Your task to perform on an android device: set an alarm Image 0: 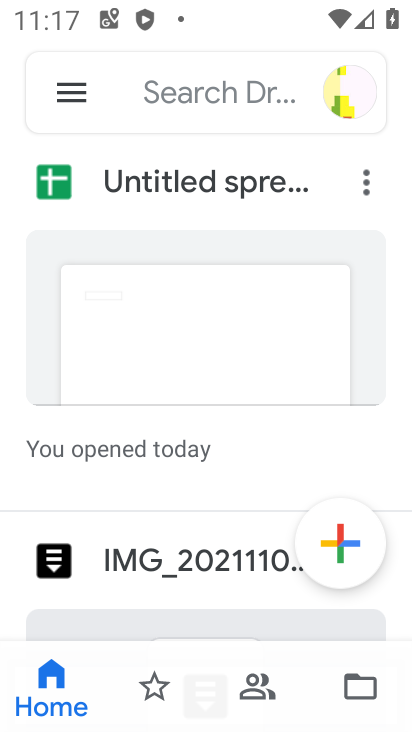
Step 0: press home button
Your task to perform on an android device: set an alarm Image 1: 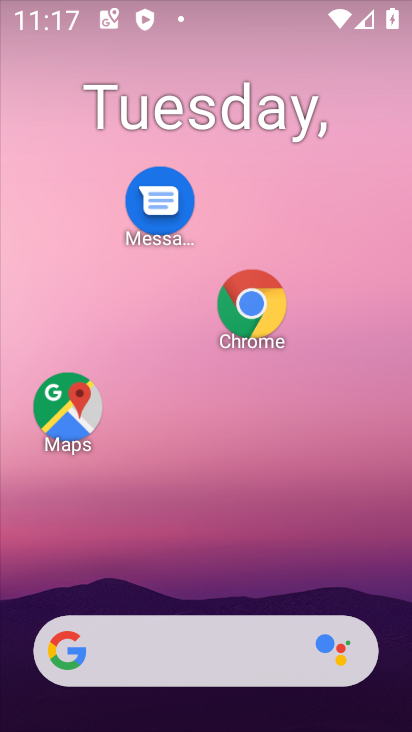
Step 1: drag from (234, 606) to (268, 161)
Your task to perform on an android device: set an alarm Image 2: 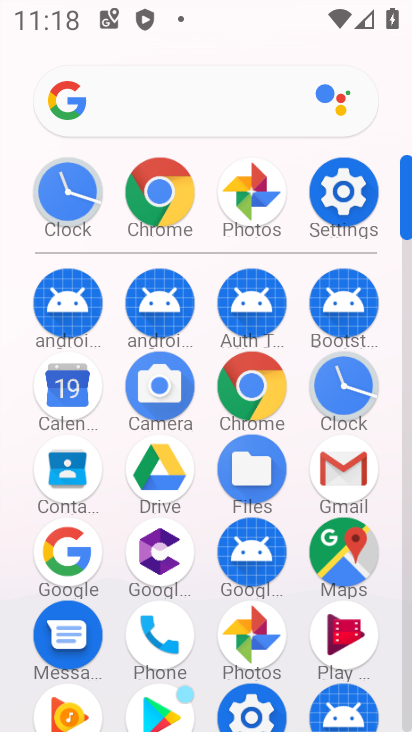
Step 2: click (333, 369)
Your task to perform on an android device: set an alarm Image 3: 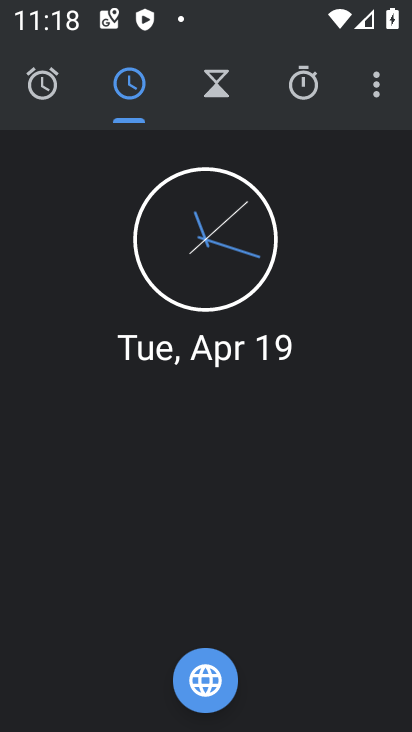
Step 3: click (28, 70)
Your task to perform on an android device: set an alarm Image 4: 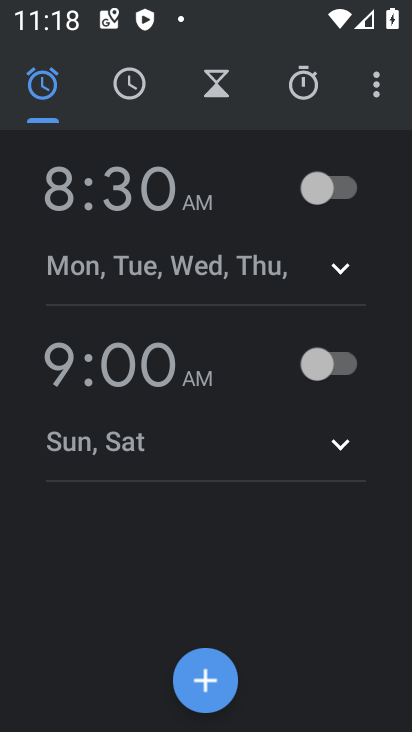
Step 4: click (330, 193)
Your task to perform on an android device: set an alarm Image 5: 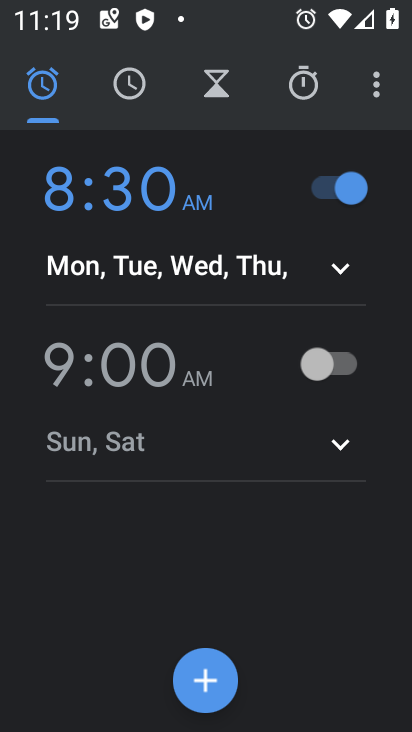
Step 5: task complete